Your task to perform on an android device: Open the calendar app, open the side menu, and click the "Day" option Image 0: 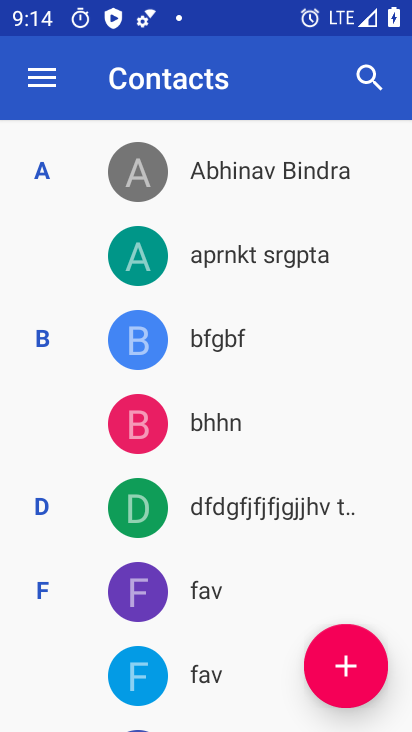
Step 0: press home button
Your task to perform on an android device: Open the calendar app, open the side menu, and click the "Day" option Image 1: 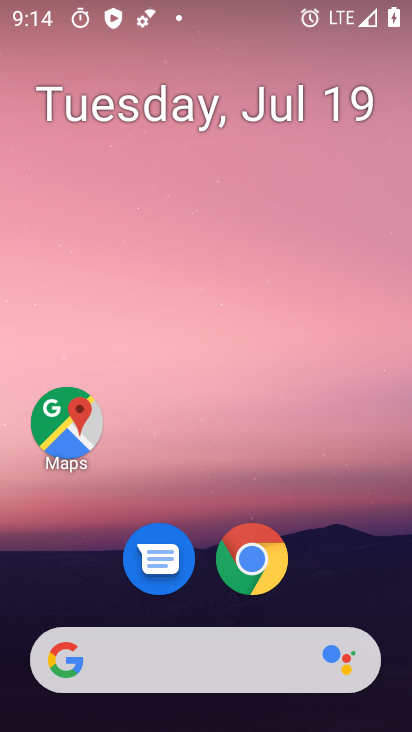
Step 1: drag from (395, 619) to (332, 170)
Your task to perform on an android device: Open the calendar app, open the side menu, and click the "Day" option Image 2: 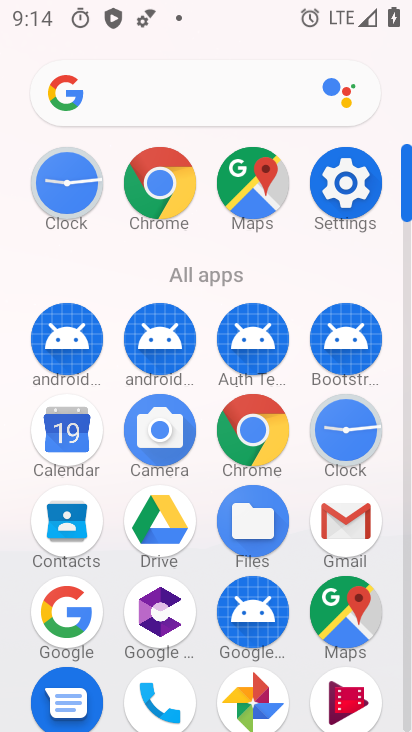
Step 2: click (69, 421)
Your task to perform on an android device: Open the calendar app, open the side menu, and click the "Day" option Image 3: 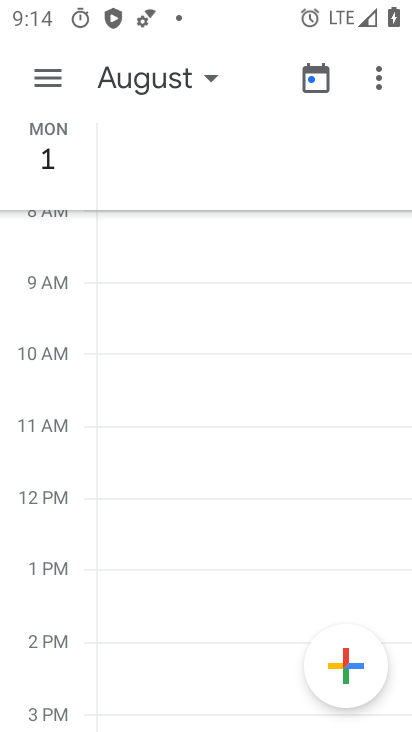
Step 3: click (50, 86)
Your task to perform on an android device: Open the calendar app, open the side menu, and click the "Day" option Image 4: 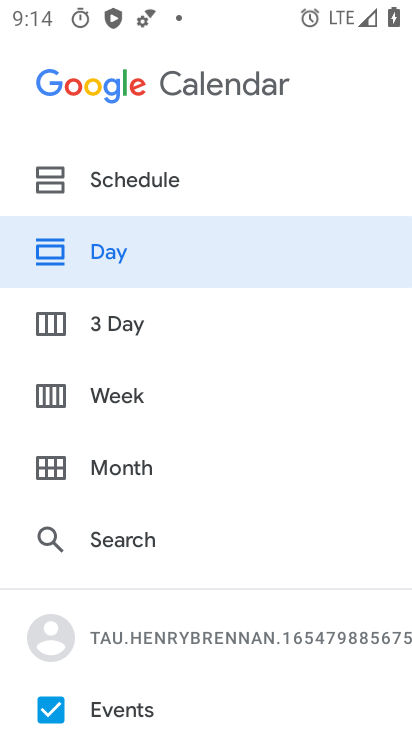
Step 4: click (113, 256)
Your task to perform on an android device: Open the calendar app, open the side menu, and click the "Day" option Image 5: 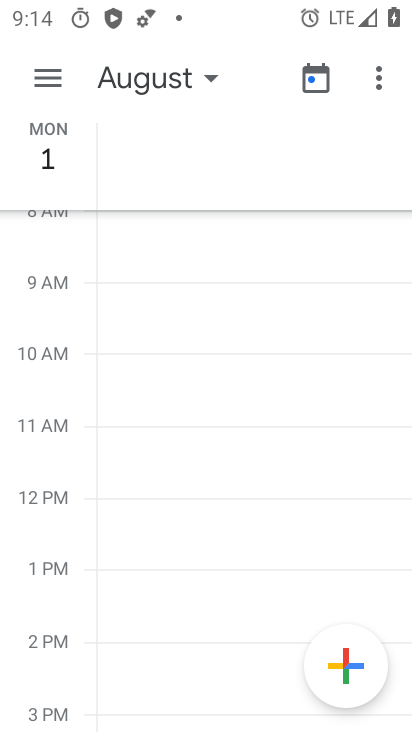
Step 5: task complete